Your task to perform on an android device: turn on javascript in the chrome app Image 0: 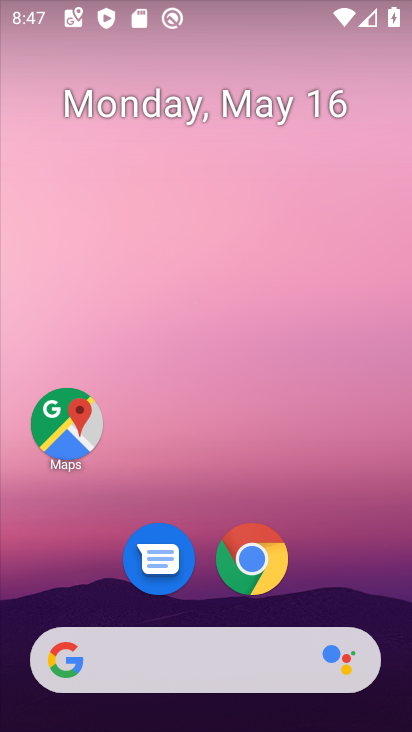
Step 0: click (226, 559)
Your task to perform on an android device: turn on javascript in the chrome app Image 1: 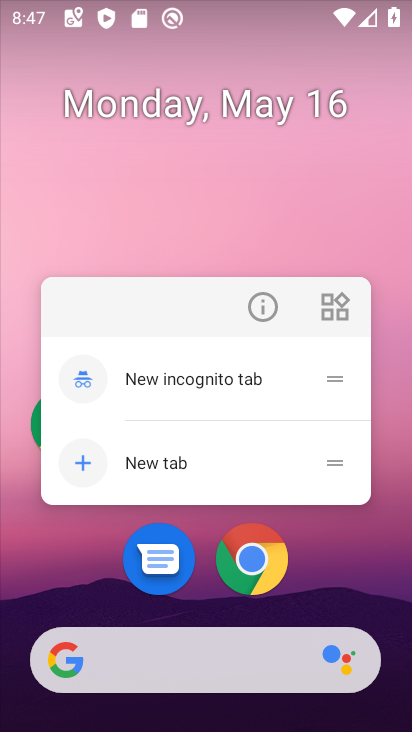
Step 1: click (227, 539)
Your task to perform on an android device: turn on javascript in the chrome app Image 2: 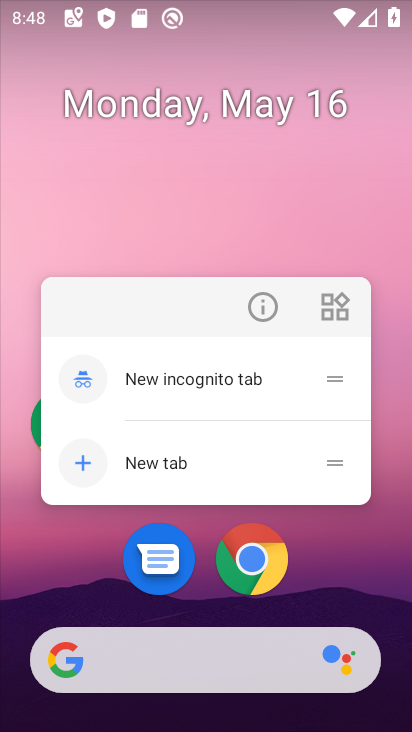
Step 2: click (216, 489)
Your task to perform on an android device: turn on javascript in the chrome app Image 3: 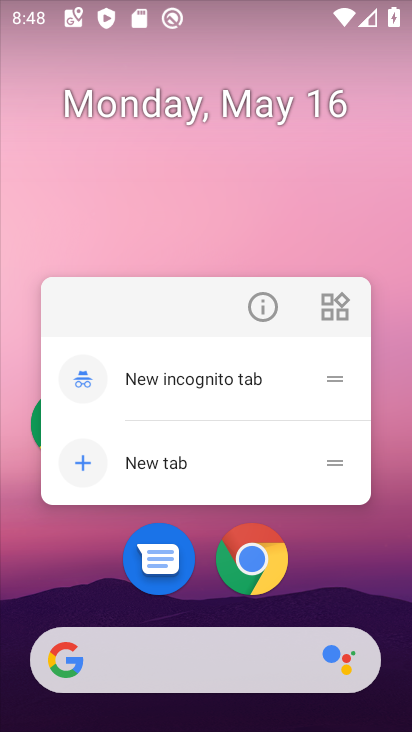
Step 3: click (245, 569)
Your task to perform on an android device: turn on javascript in the chrome app Image 4: 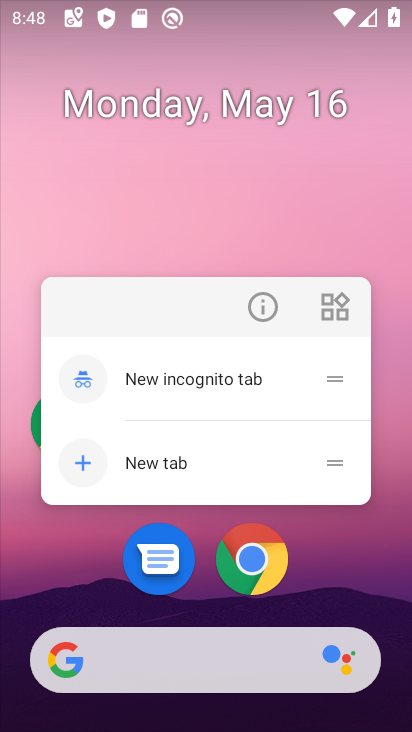
Step 4: click (248, 567)
Your task to perform on an android device: turn on javascript in the chrome app Image 5: 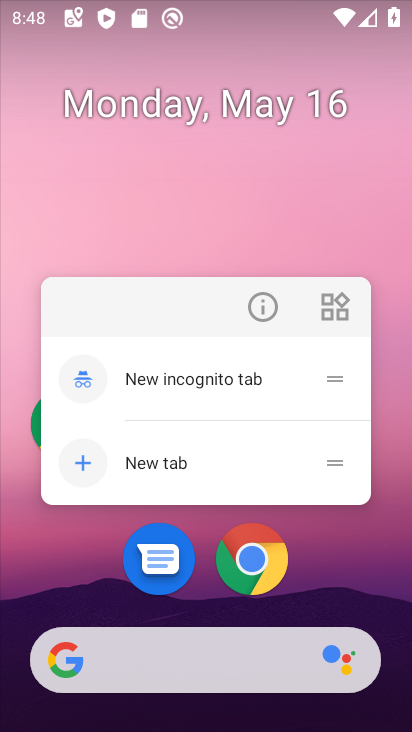
Step 5: click (247, 557)
Your task to perform on an android device: turn on javascript in the chrome app Image 6: 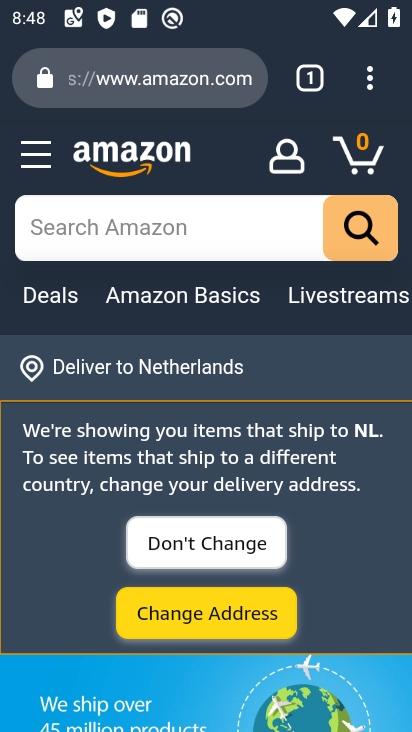
Step 6: click (365, 79)
Your task to perform on an android device: turn on javascript in the chrome app Image 7: 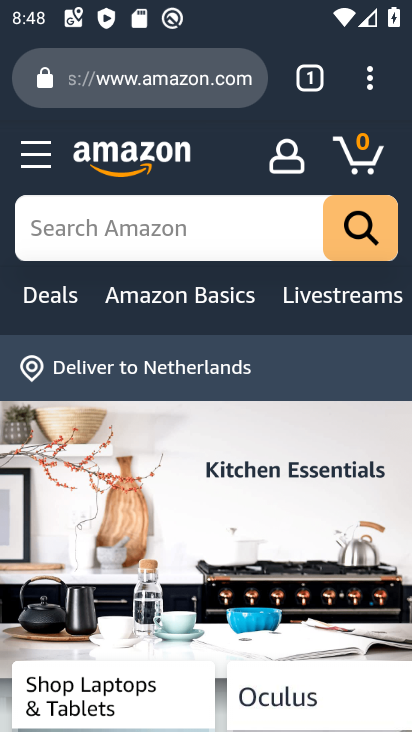
Step 7: click (365, 82)
Your task to perform on an android device: turn on javascript in the chrome app Image 8: 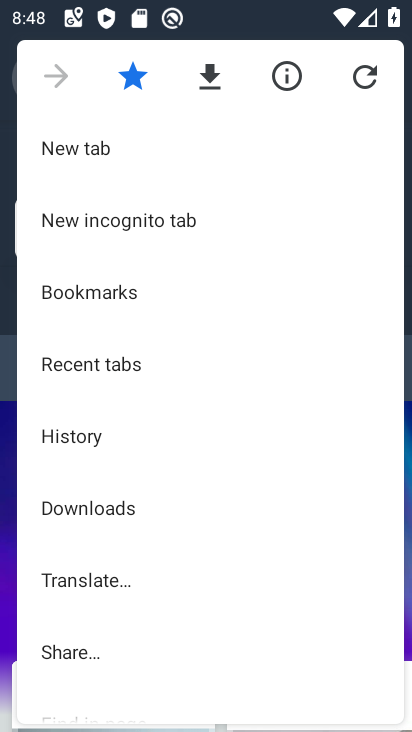
Step 8: drag from (122, 564) to (128, 384)
Your task to perform on an android device: turn on javascript in the chrome app Image 9: 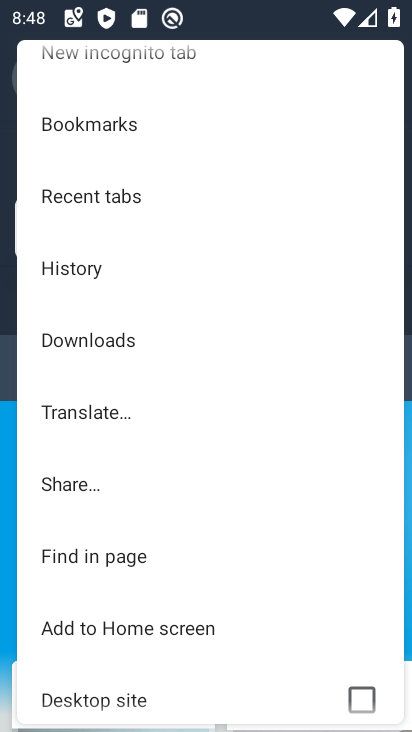
Step 9: drag from (141, 642) to (156, 425)
Your task to perform on an android device: turn on javascript in the chrome app Image 10: 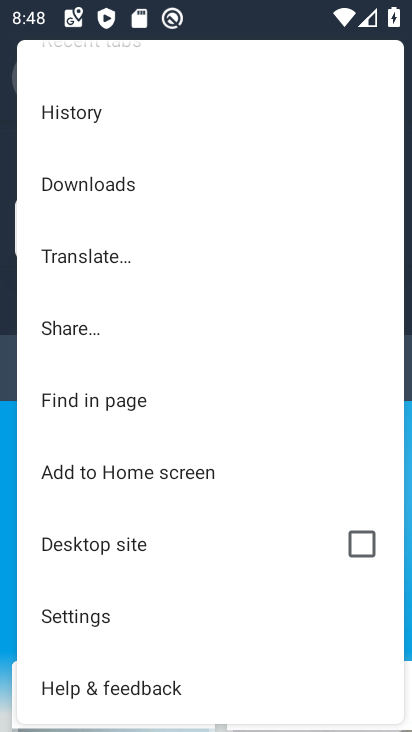
Step 10: click (124, 618)
Your task to perform on an android device: turn on javascript in the chrome app Image 11: 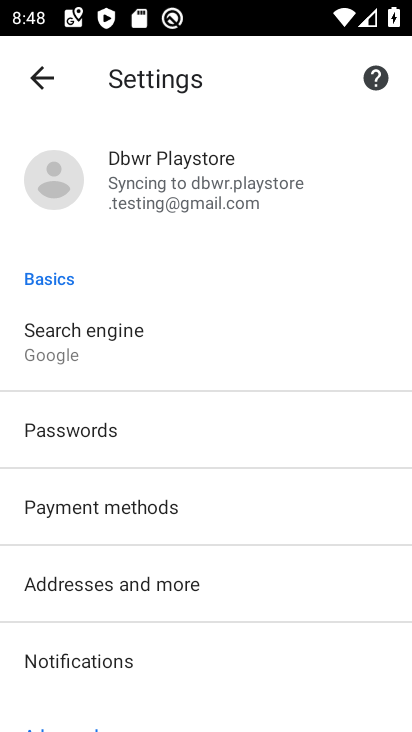
Step 11: drag from (142, 605) to (174, 402)
Your task to perform on an android device: turn on javascript in the chrome app Image 12: 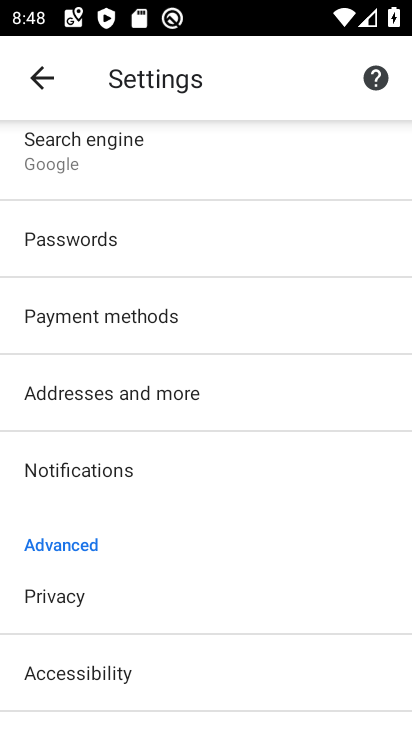
Step 12: drag from (119, 684) to (119, 411)
Your task to perform on an android device: turn on javascript in the chrome app Image 13: 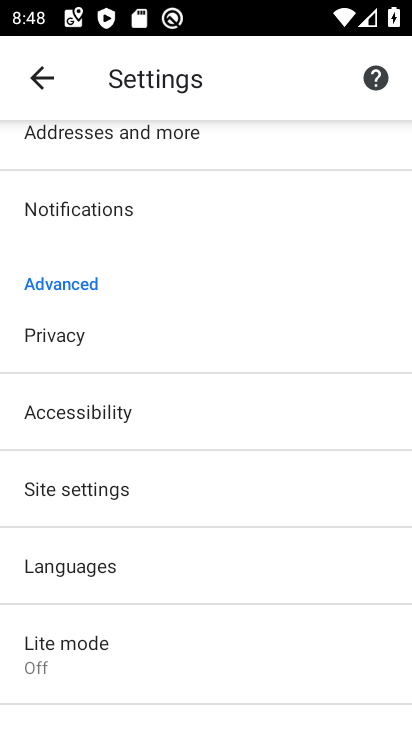
Step 13: click (172, 483)
Your task to perform on an android device: turn on javascript in the chrome app Image 14: 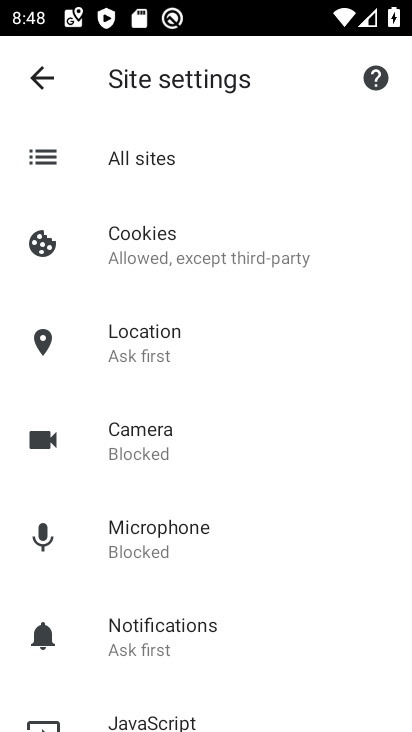
Step 14: drag from (194, 548) to (194, 375)
Your task to perform on an android device: turn on javascript in the chrome app Image 15: 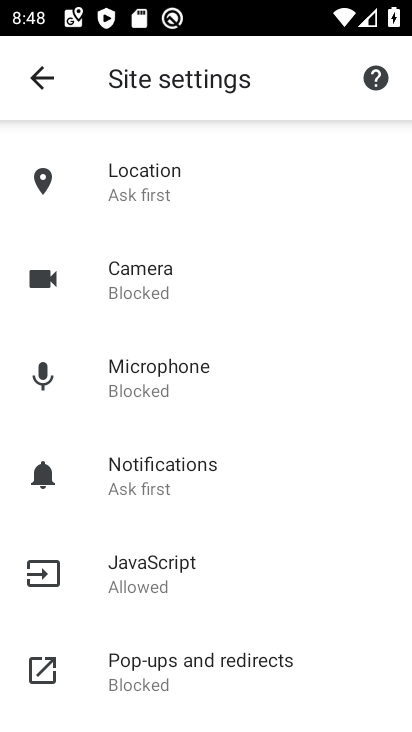
Step 15: click (179, 583)
Your task to perform on an android device: turn on javascript in the chrome app Image 16: 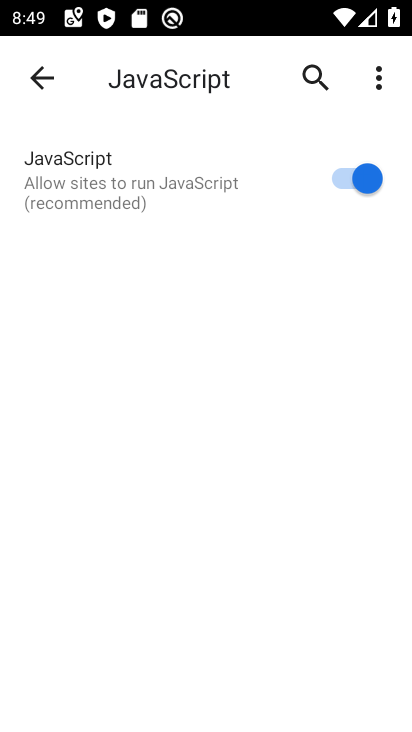
Step 16: task complete